Your task to perform on an android device: Open CNN.com Image 0: 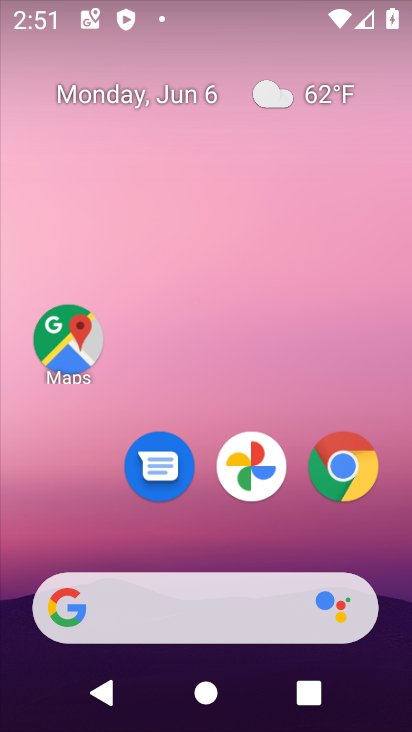
Step 0: press back button
Your task to perform on an android device: Open CNN.com Image 1: 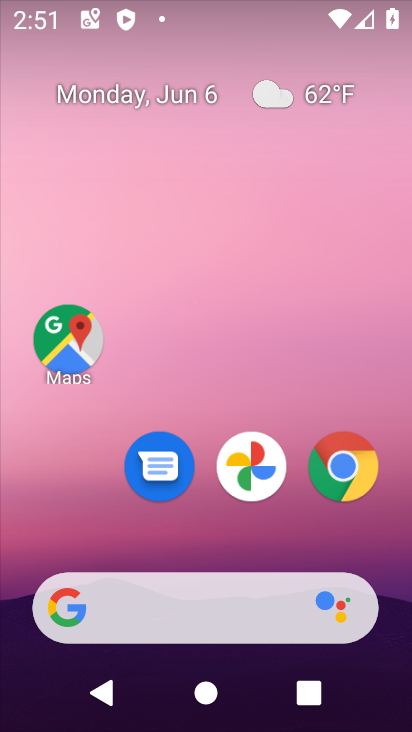
Step 1: drag from (243, 651) to (220, 185)
Your task to perform on an android device: Open CNN.com Image 2: 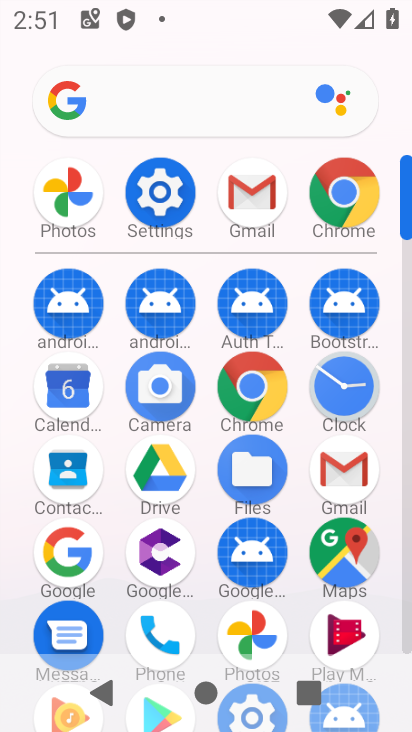
Step 2: click (352, 185)
Your task to perform on an android device: Open CNN.com Image 3: 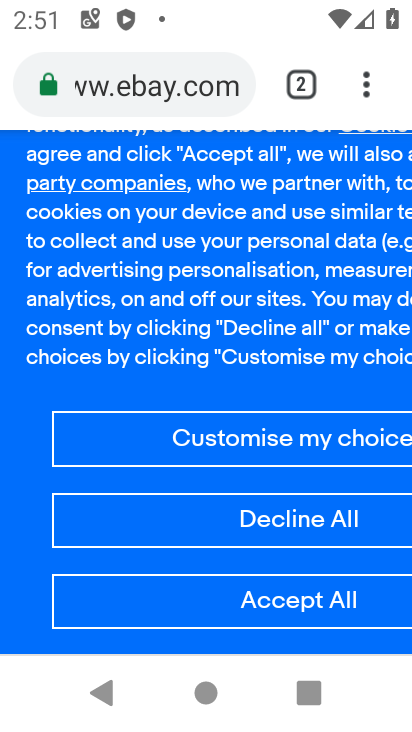
Step 3: click (364, 94)
Your task to perform on an android device: Open CNN.com Image 4: 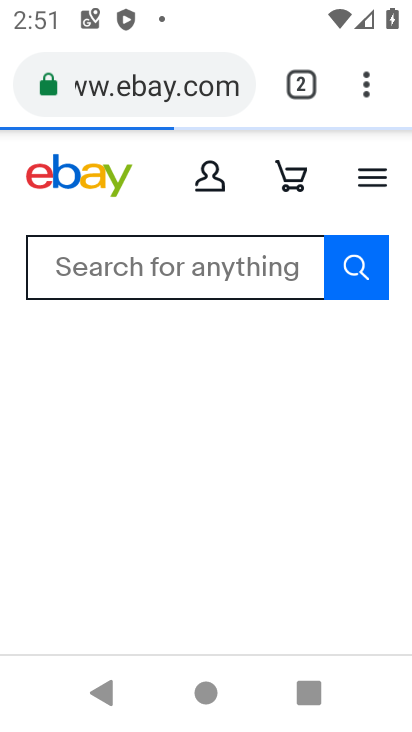
Step 4: click (352, 44)
Your task to perform on an android device: Open CNN.com Image 5: 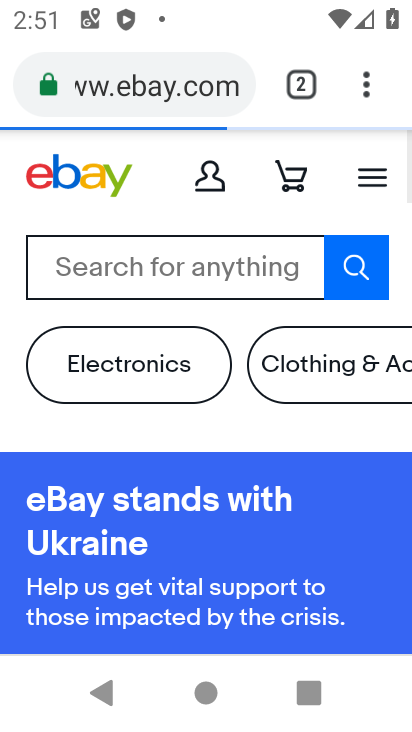
Step 5: drag from (347, 78) to (53, 172)
Your task to perform on an android device: Open CNN.com Image 6: 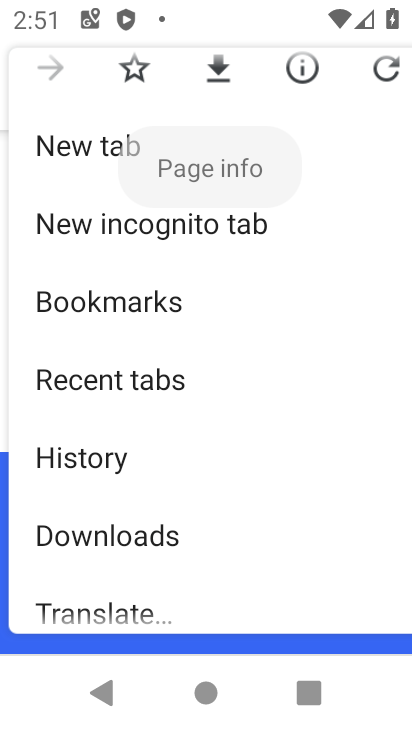
Step 6: click (53, 170)
Your task to perform on an android device: Open CNN.com Image 7: 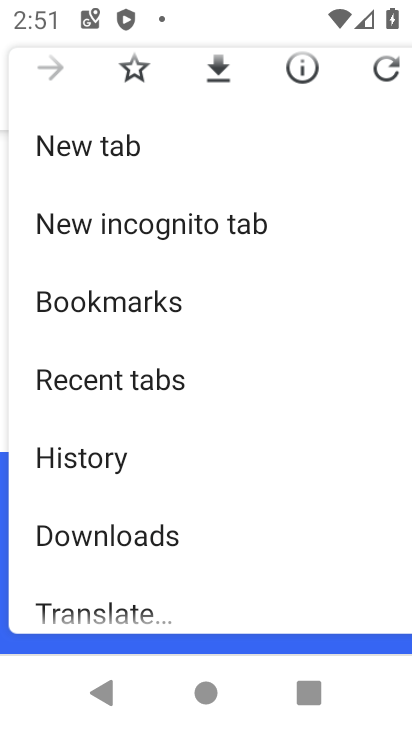
Step 7: click (53, 166)
Your task to perform on an android device: Open CNN.com Image 8: 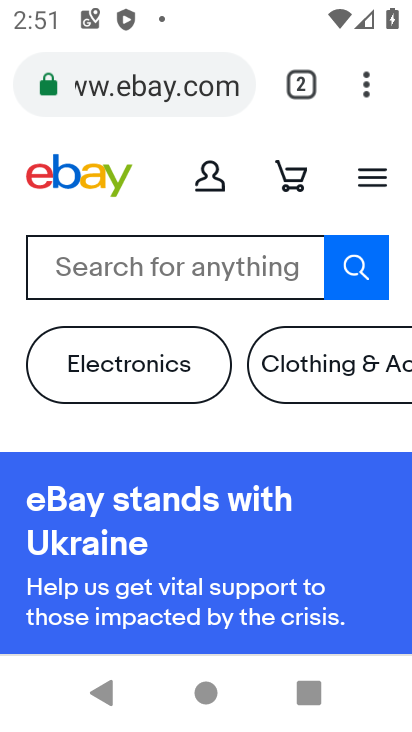
Step 8: click (72, 153)
Your task to perform on an android device: Open CNN.com Image 9: 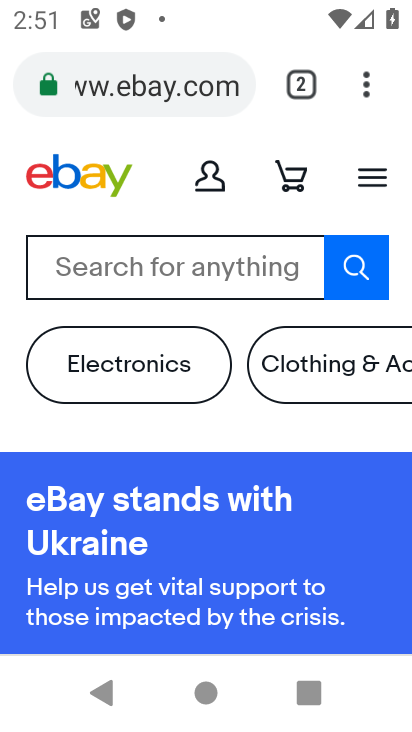
Step 9: click (73, 152)
Your task to perform on an android device: Open CNN.com Image 10: 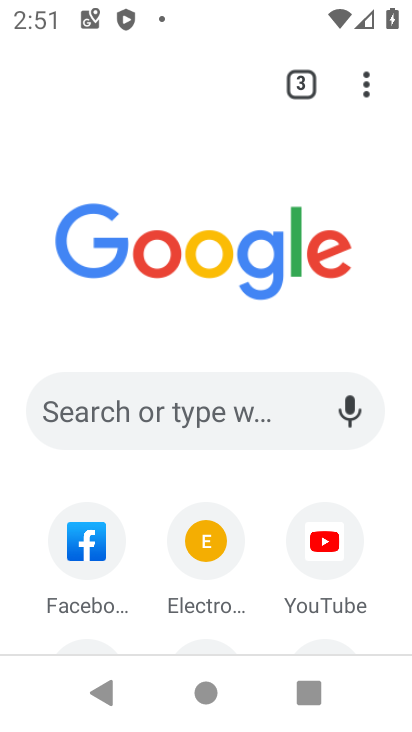
Step 10: click (161, 390)
Your task to perform on an android device: Open CNN.com Image 11: 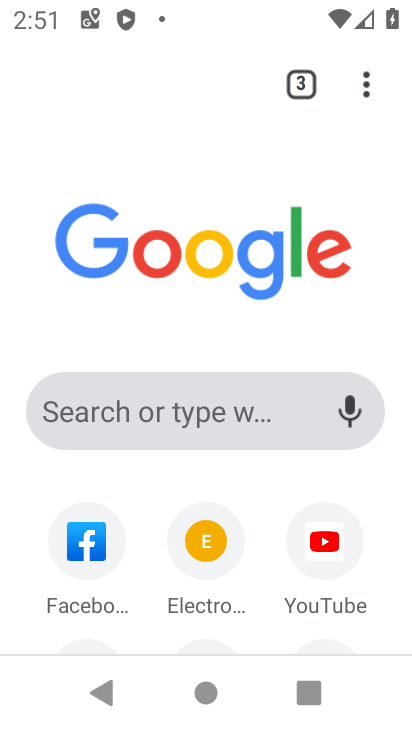
Step 11: click (159, 388)
Your task to perform on an android device: Open CNN.com Image 12: 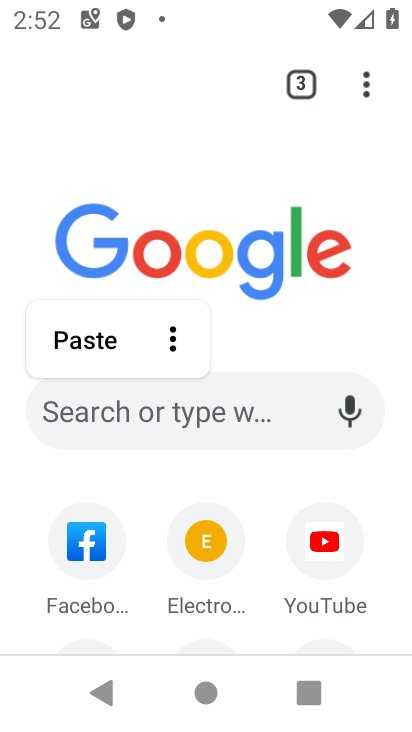
Step 12: type "cnn.com"
Your task to perform on an android device: Open CNN.com Image 13: 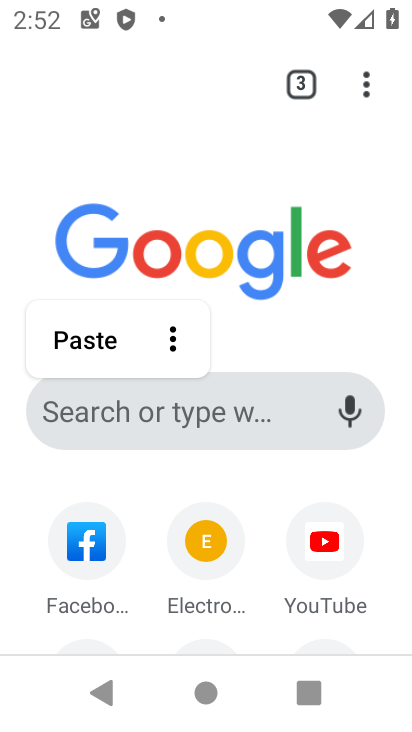
Step 13: click (82, 411)
Your task to perform on an android device: Open CNN.com Image 14: 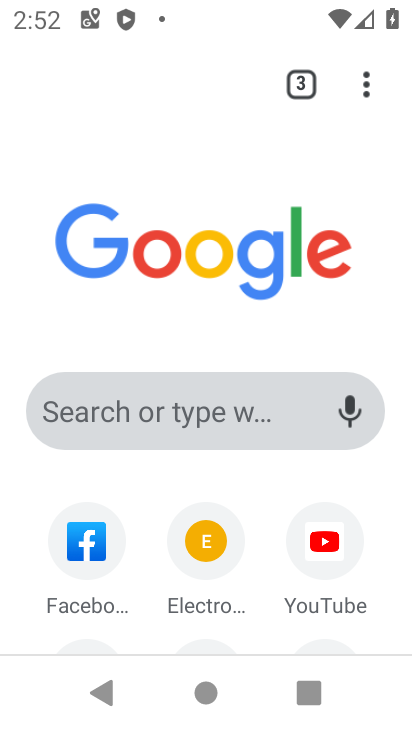
Step 14: click (90, 404)
Your task to perform on an android device: Open CNN.com Image 15: 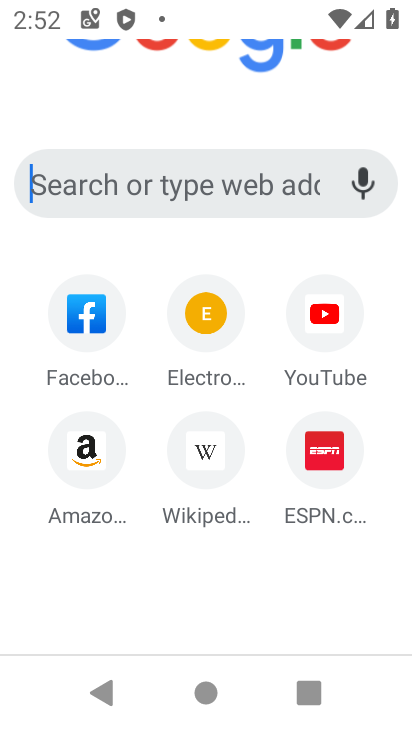
Step 15: click (92, 404)
Your task to perform on an android device: Open CNN.com Image 16: 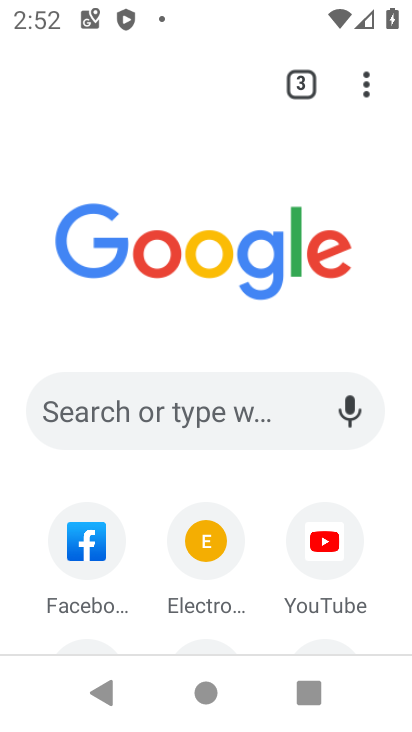
Step 16: type "cnn.com"
Your task to perform on an android device: Open CNN.com Image 17: 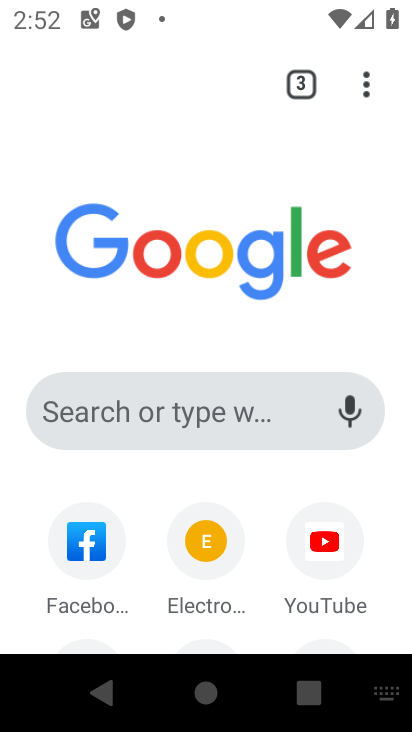
Step 17: click (106, 418)
Your task to perform on an android device: Open CNN.com Image 18: 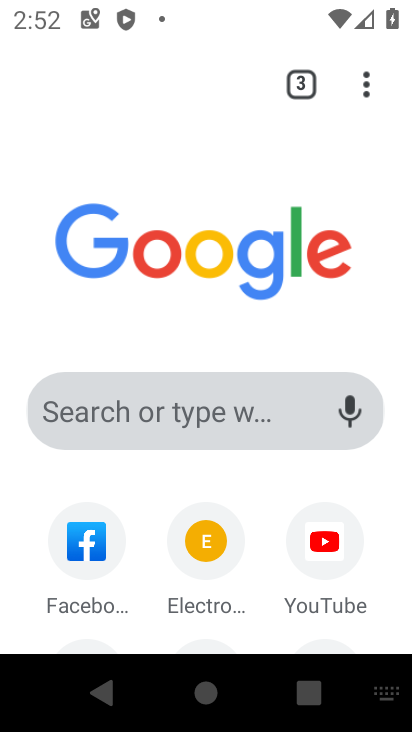
Step 18: click (137, 426)
Your task to perform on an android device: Open CNN.com Image 19: 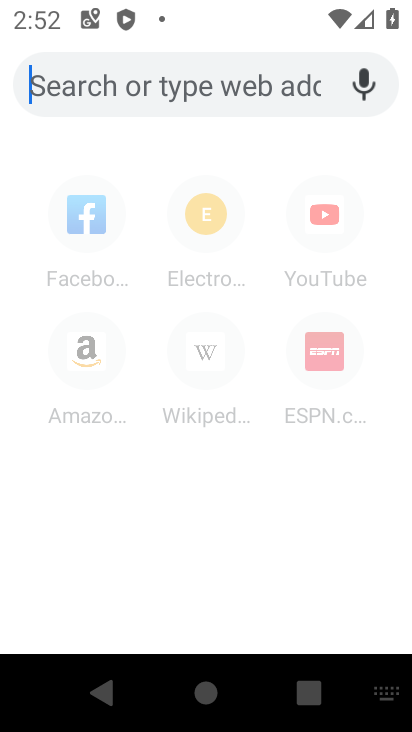
Step 19: type "cnn.com"
Your task to perform on an android device: Open CNN.com Image 20: 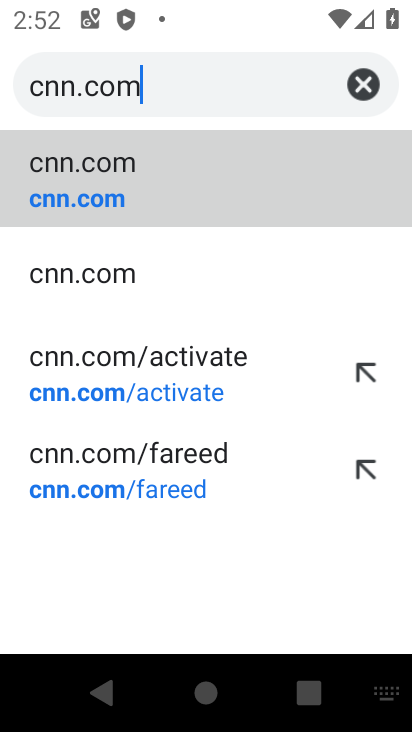
Step 20: click (74, 205)
Your task to perform on an android device: Open CNN.com Image 21: 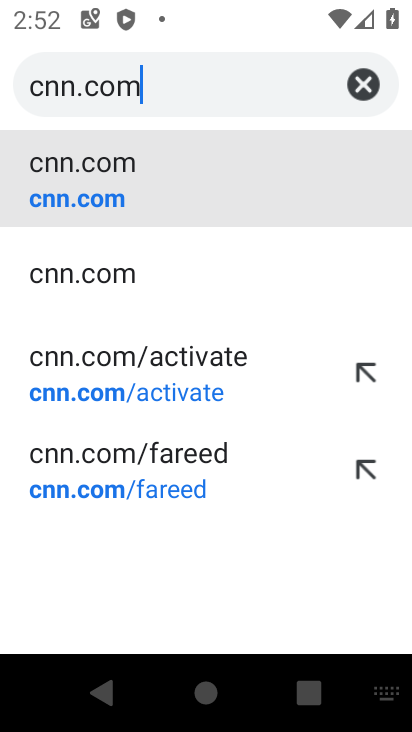
Step 21: click (74, 204)
Your task to perform on an android device: Open CNN.com Image 22: 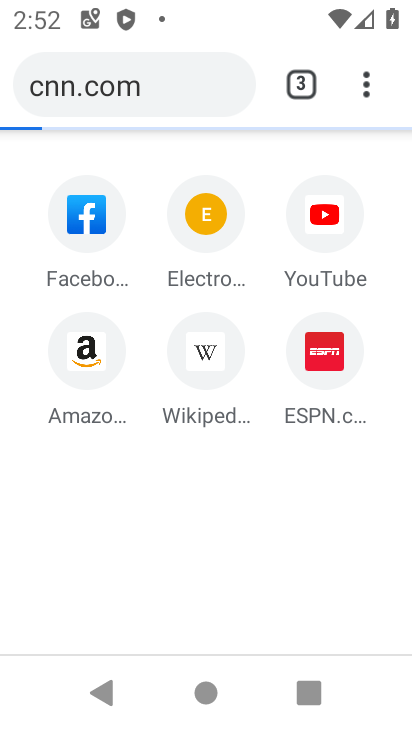
Step 22: click (70, 206)
Your task to perform on an android device: Open CNN.com Image 23: 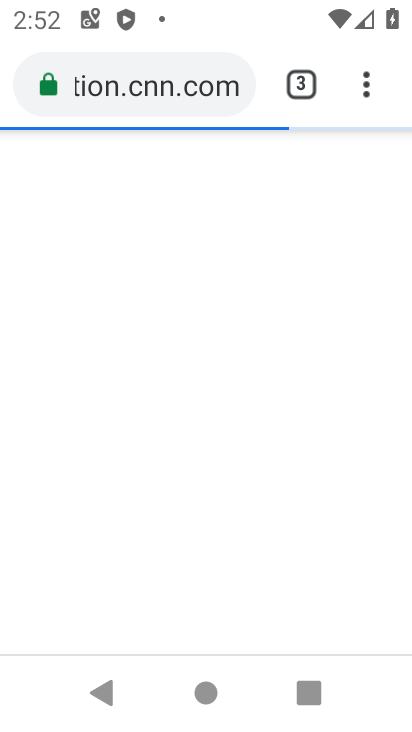
Step 23: task complete